Your task to perform on an android device: Go to internet settings Image 0: 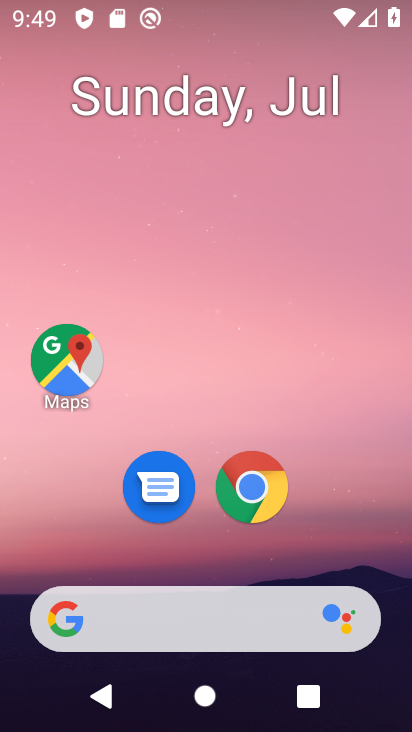
Step 0: drag from (174, 537) to (293, 19)
Your task to perform on an android device: Go to internet settings Image 1: 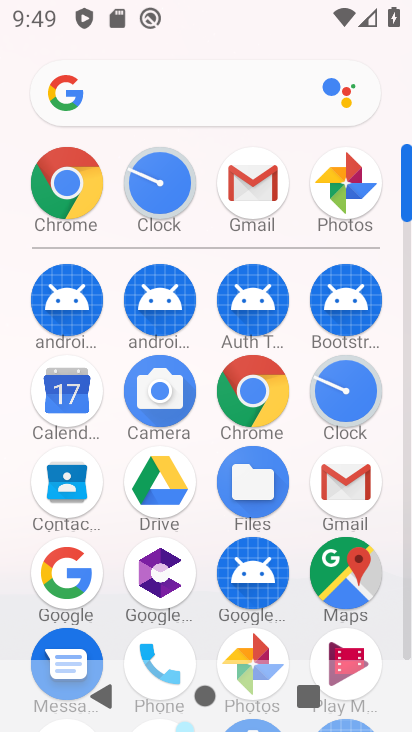
Step 1: drag from (195, 587) to (293, 62)
Your task to perform on an android device: Go to internet settings Image 2: 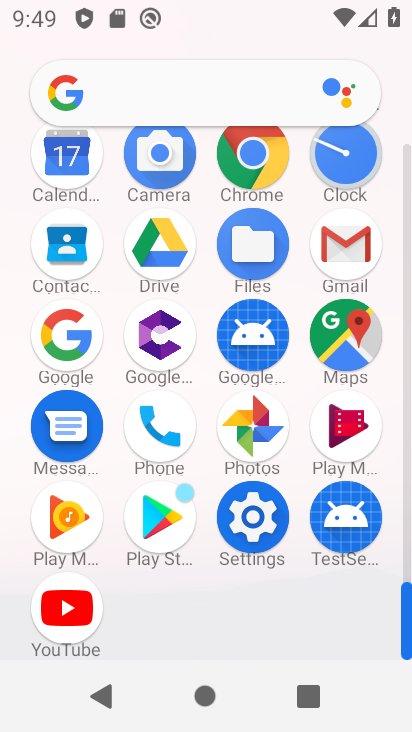
Step 2: click (252, 533)
Your task to perform on an android device: Go to internet settings Image 3: 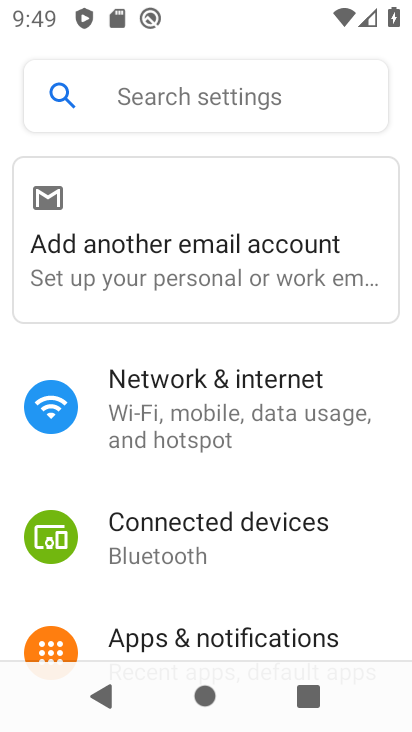
Step 3: click (251, 380)
Your task to perform on an android device: Go to internet settings Image 4: 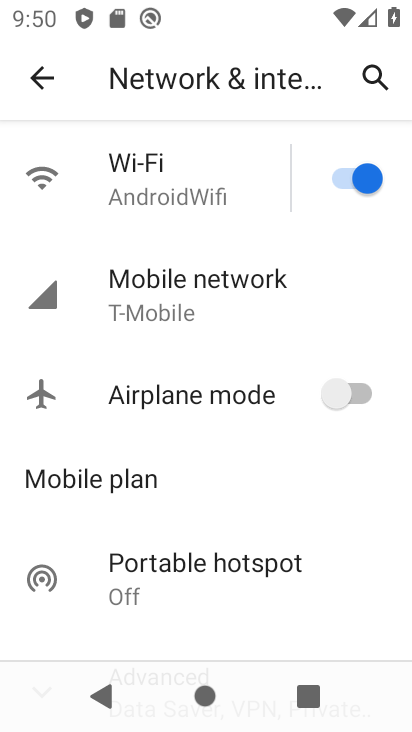
Step 4: task complete